Your task to perform on an android device: Open Chrome and go to the settings page Image 0: 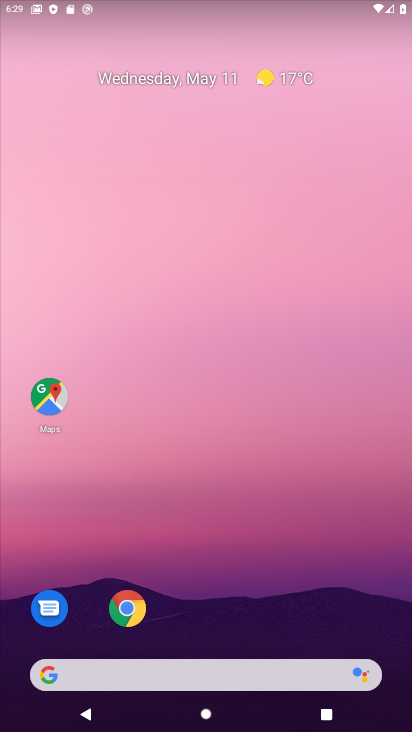
Step 0: click (114, 622)
Your task to perform on an android device: Open Chrome and go to the settings page Image 1: 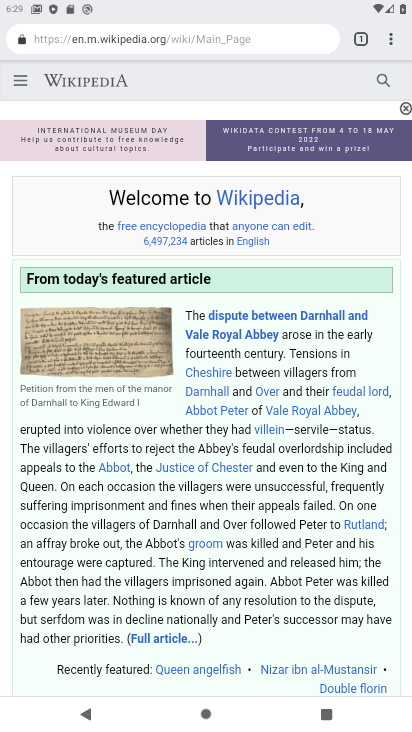
Step 1: click (391, 34)
Your task to perform on an android device: Open Chrome and go to the settings page Image 2: 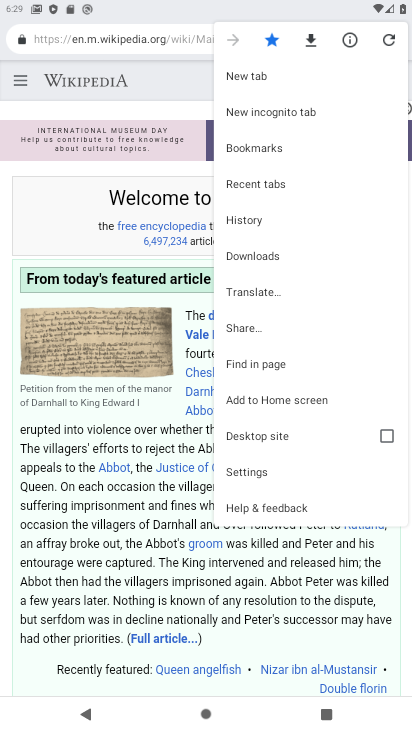
Step 2: click (266, 458)
Your task to perform on an android device: Open Chrome and go to the settings page Image 3: 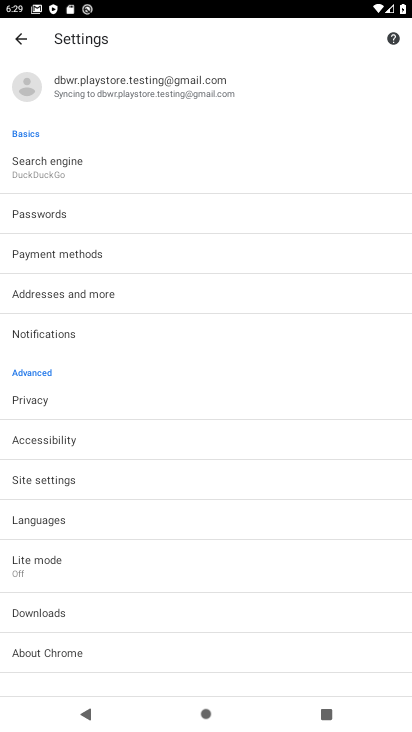
Step 3: task complete